Your task to perform on an android device: turn on notifications settings in the gmail app Image 0: 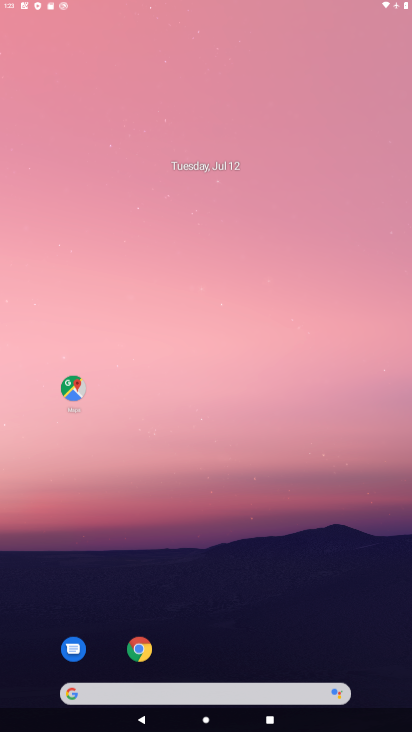
Step 0: drag from (281, 629) to (149, 58)
Your task to perform on an android device: turn on notifications settings in the gmail app Image 1: 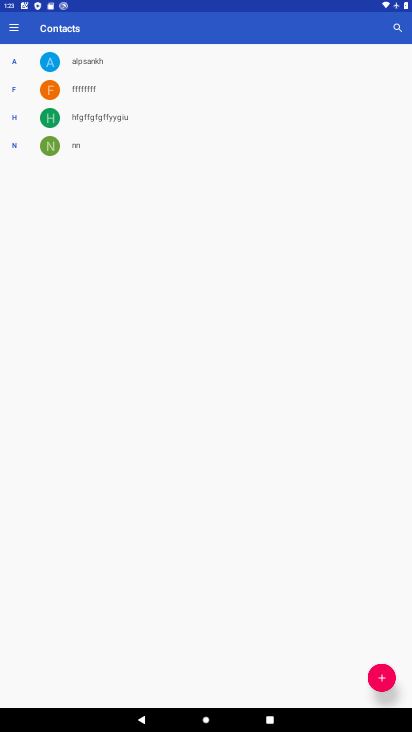
Step 1: press home button
Your task to perform on an android device: turn on notifications settings in the gmail app Image 2: 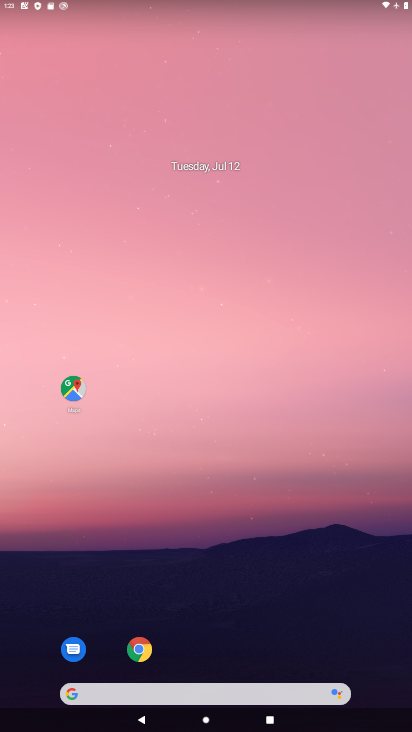
Step 2: drag from (267, 664) to (168, 110)
Your task to perform on an android device: turn on notifications settings in the gmail app Image 3: 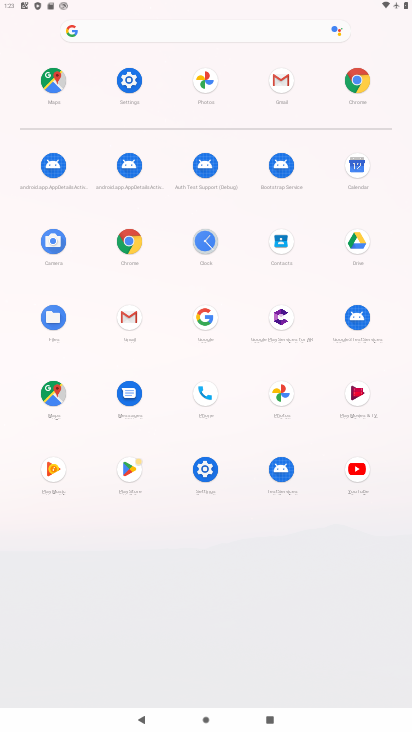
Step 3: click (270, 83)
Your task to perform on an android device: turn on notifications settings in the gmail app Image 4: 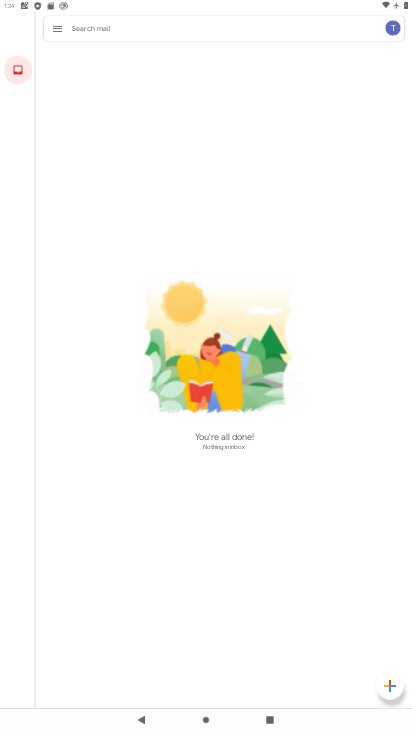
Step 4: click (387, 30)
Your task to perform on an android device: turn on notifications settings in the gmail app Image 5: 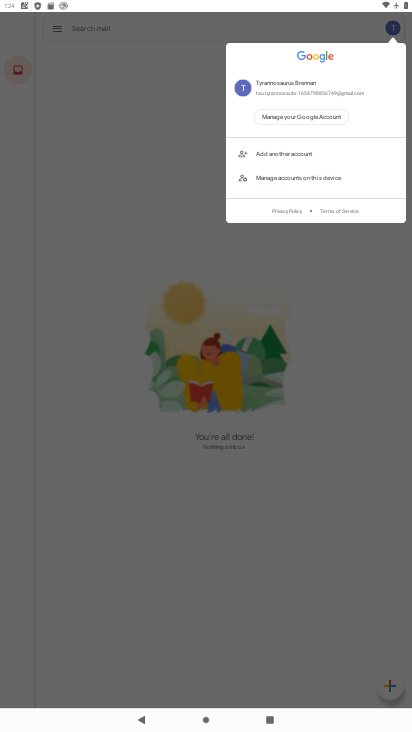
Step 5: click (93, 139)
Your task to perform on an android device: turn on notifications settings in the gmail app Image 6: 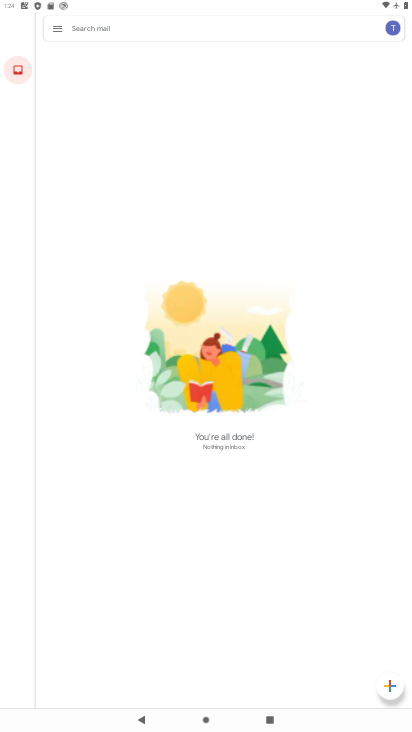
Step 6: click (48, 28)
Your task to perform on an android device: turn on notifications settings in the gmail app Image 7: 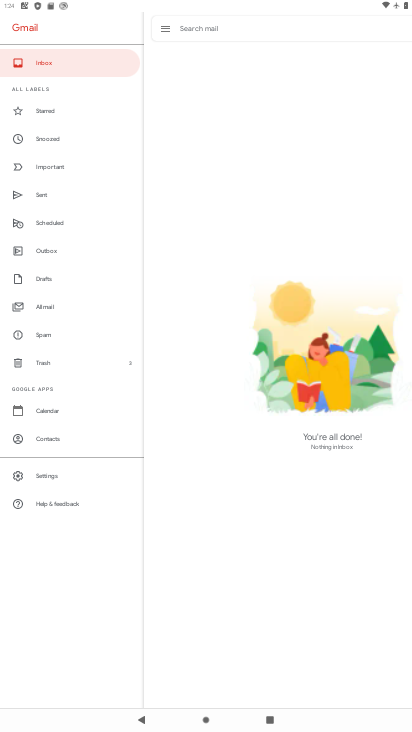
Step 7: click (51, 480)
Your task to perform on an android device: turn on notifications settings in the gmail app Image 8: 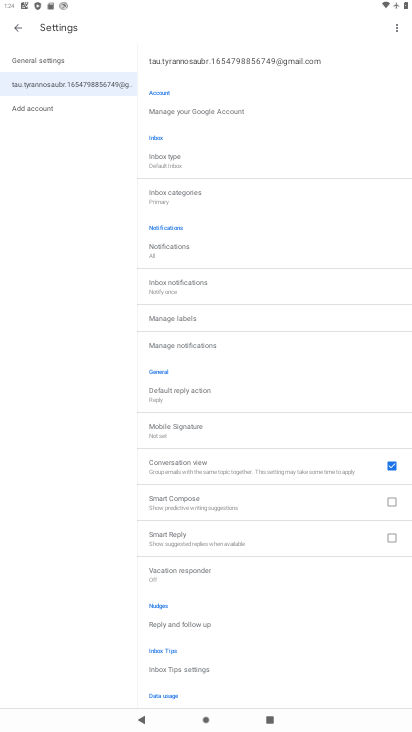
Step 8: click (204, 250)
Your task to perform on an android device: turn on notifications settings in the gmail app Image 9: 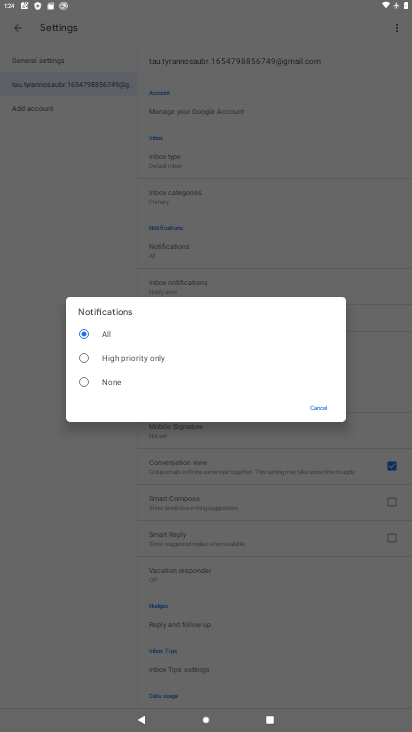
Step 9: click (161, 351)
Your task to perform on an android device: turn on notifications settings in the gmail app Image 10: 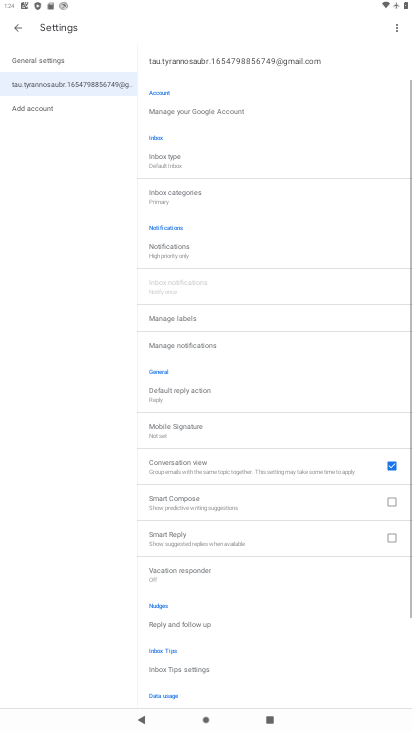
Step 10: task complete